Your task to perform on an android device: Search for "logitech g pro" on amazon, select the first entry, add it to the cart, then select checkout. Image 0: 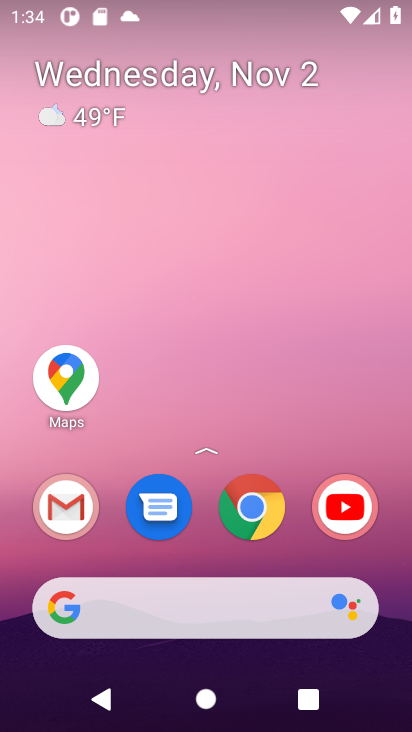
Step 0: click (143, 592)
Your task to perform on an android device: Search for "logitech g pro" on amazon, select the first entry, add it to the cart, then select checkout. Image 1: 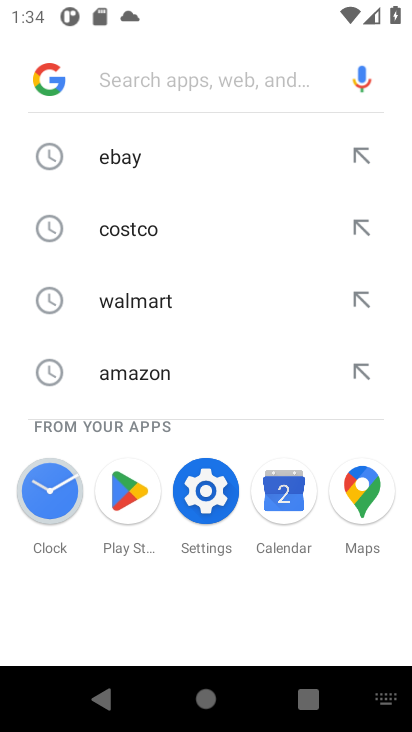
Step 1: click (160, 367)
Your task to perform on an android device: Search for "logitech g pro" on amazon, select the first entry, add it to the cart, then select checkout. Image 2: 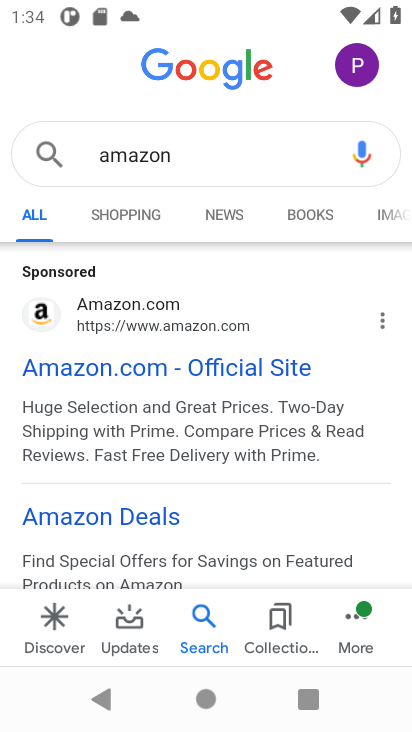
Step 2: click (78, 369)
Your task to perform on an android device: Search for "logitech g pro" on amazon, select the first entry, add it to the cart, then select checkout. Image 3: 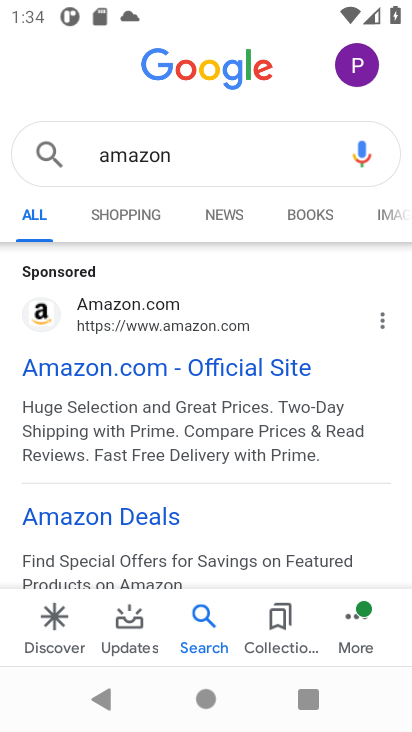
Step 3: click (208, 374)
Your task to perform on an android device: Search for "logitech g pro" on amazon, select the first entry, add it to the cart, then select checkout. Image 4: 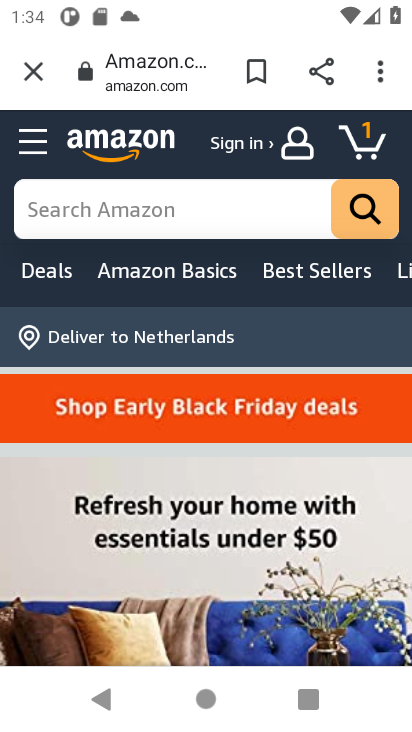
Step 4: click (158, 218)
Your task to perform on an android device: Search for "logitech g pro" on amazon, select the first entry, add it to the cart, then select checkout. Image 5: 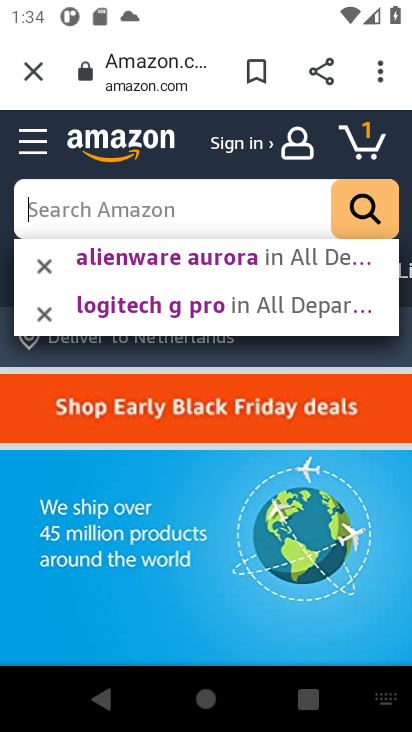
Step 5: type "logitech g pro"
Your task to perform on an android device: Search for "logitech g pro" on amazon, select the first entry, add it to the cart, then select checkout. Image 6: 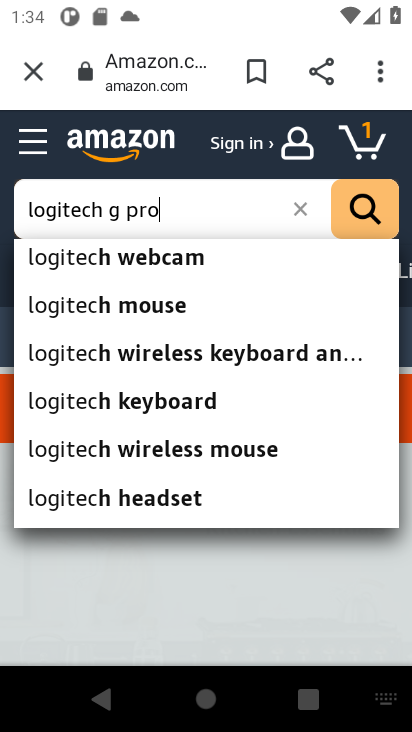
Step 6: type ""
Your task to perform on an android device: Search for "logitech g pro" on amazon, select the first entry, add it to the cart, then select checkout. Image 7: 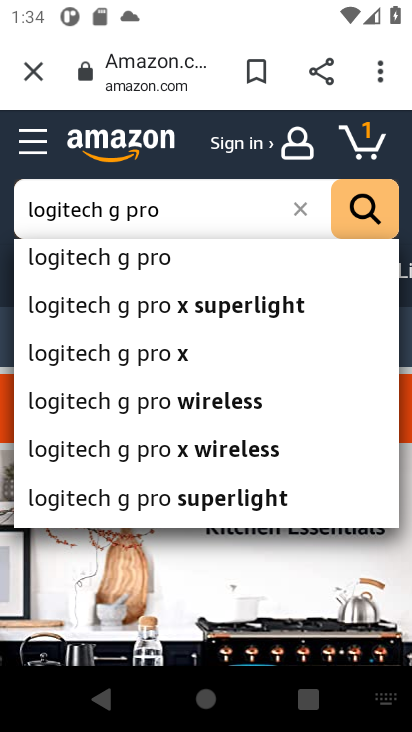
Step 7: click (105, 261)
Your task to perform on an android device: Search for "logitech g pro" on amazon, select the first entry, add it to the cart, then select checkout. Image 8: 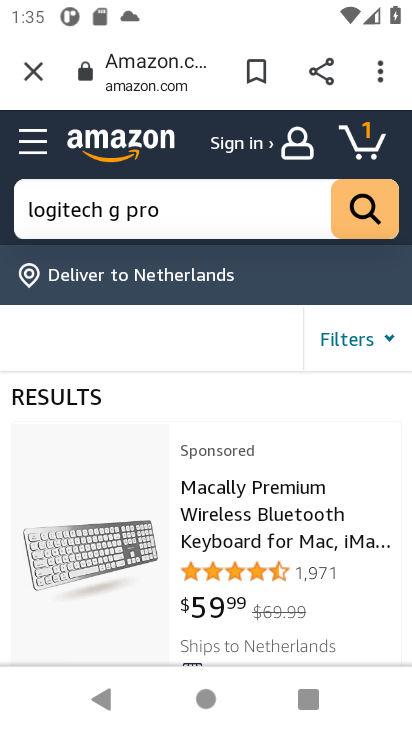
Step 8: drag from (286, 549) to (297, 448)
Your task to perform on an android device: Search for "logitech g pro" on amazon, select the first entry, add it to the cart, then select checkout. Image 9: 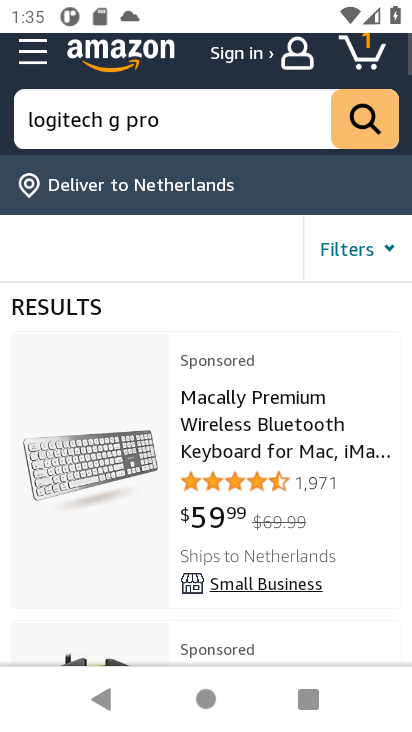
Step 9: drag from (287, 537) to (296, 409)
Your task to perform on an android device: Search for "logitech g pro" on amazon, select the first entry, add it to the cart, then select checkout. Image 10: 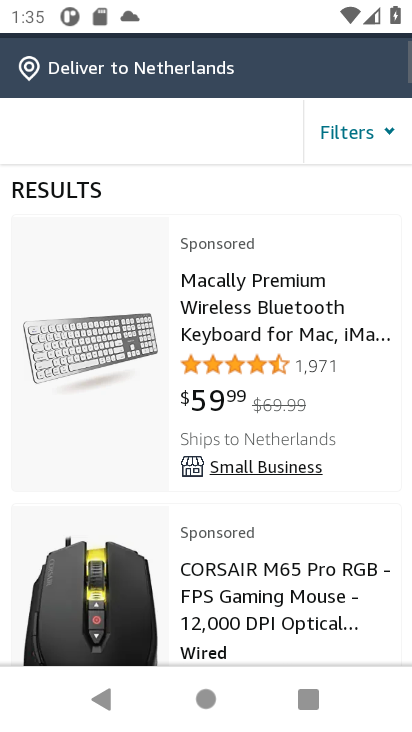
Step 10: drag from (290, 549) to (307, 378)
Your task to perform on an android device: Search for "logitech g pro" on amazon, select the first entry, add it to the cart, then select checkout. Image 11: 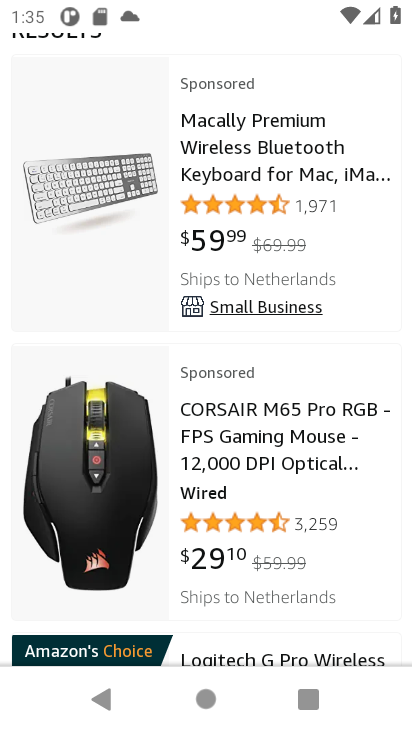
Step 11: click (283, 459)
Your task to perform on an android device: Search for "logitech g pro" on amazon, select the first entry, add it to the cart, then select checkout. Image 12: 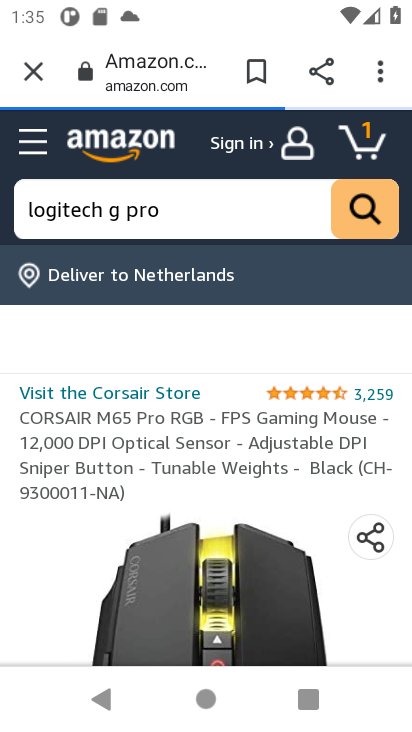
Step 12: drag from (275, 536) to (275, 353)
Your task to perform on an android device: Search for "logitech g pro" on amazon, select the first entry, add it to the cart, then select checkout. Image 13: 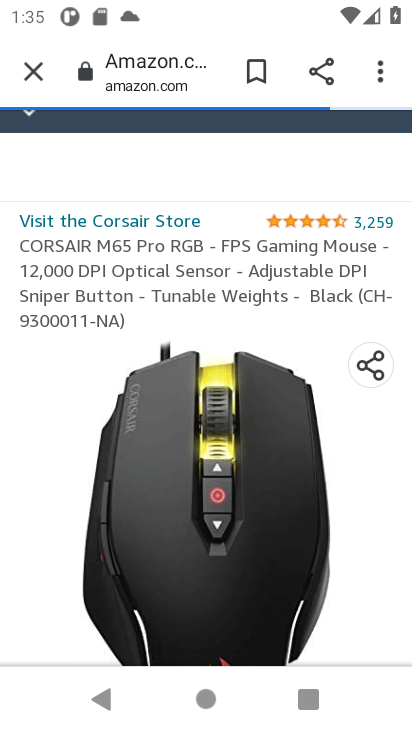
Step 13: drag from (245, 460) to (263, 278)
Your task to perform on an android device: Search for "logitech g pro" on amazon, select the first entry, add it to the cart, then select checkout. Image 14: 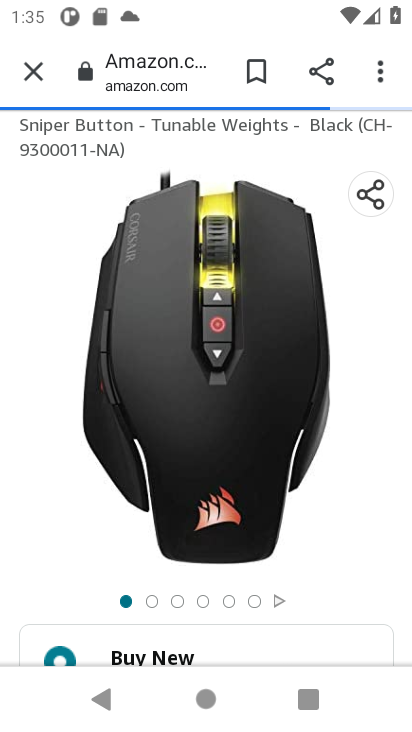
Step 14: drag from (240, 467) to (264, 224)
Your task to perform on an android device: Search for "logitech g pro" on amazon, select the first entry, add it to the cart, then select checkout. Image 15: 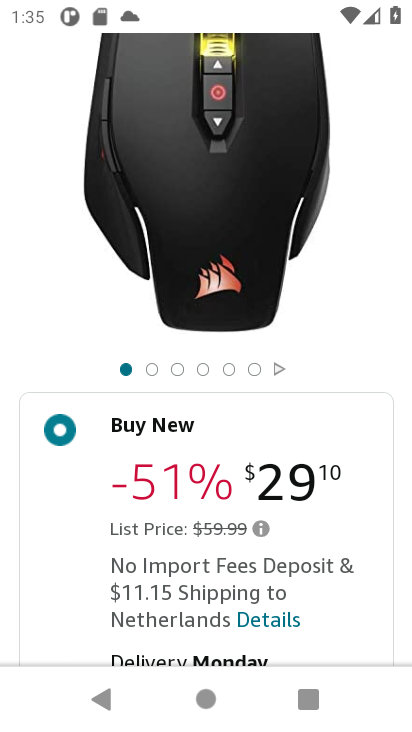
Step 15: drag from (316, 533) to (325, 214)
Your task to perform on an android device: Search for "logitech g pro" on amazon, select the first entry, add it to the cart, then select checkout. Image 16: 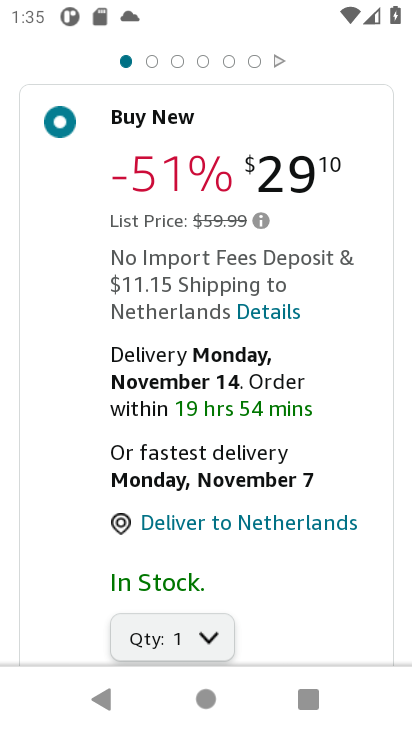
Step 16: drag from (336, 624) to (337, 246)
Your task to perform on an android device: Search for "logitech g pro" on amazon, select the first entry, add it to the cart, then select checkout. Image 17: 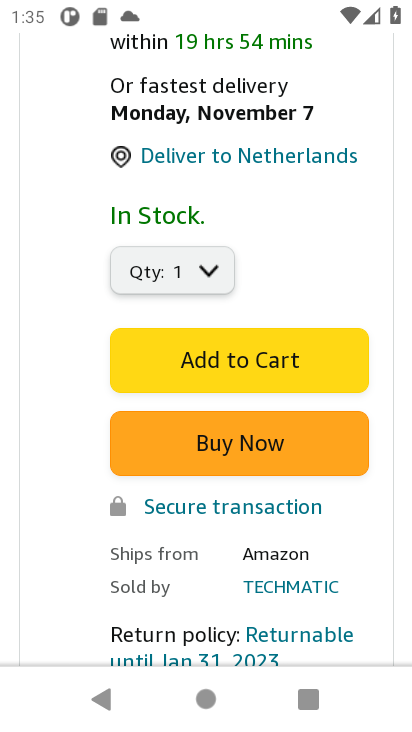
Step 17: click (272, 376)
Your task to perform on an android device: Search for "logitech g pro" on amazon, select the first entry, add it to the cart, then select checkout. Image 18: 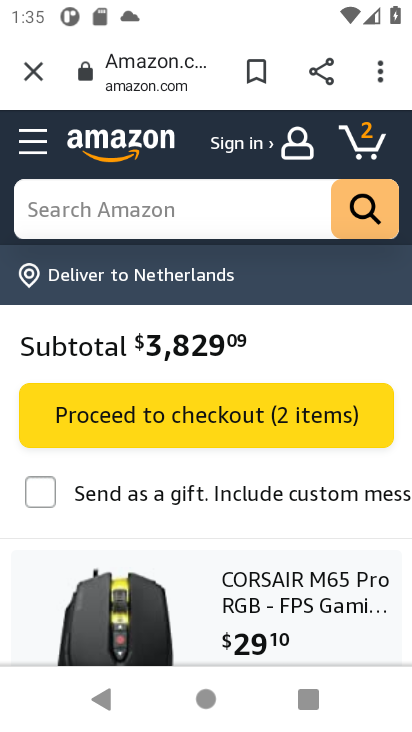
Step 18: task complete